Your task to perform on an android device: Set the phone to "Do not disturb". Image 0: 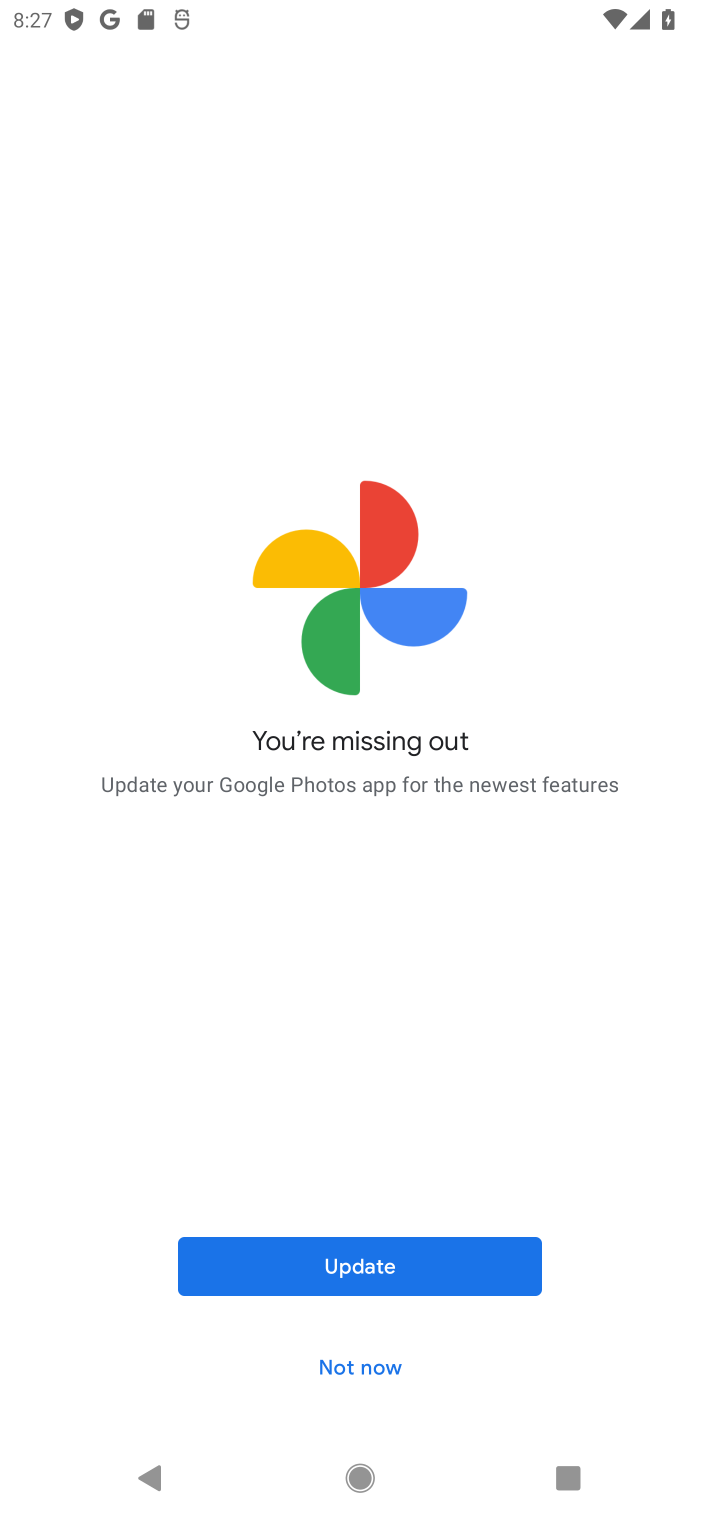
Step 0: press home button
Your task to perform on an android device: Set the phone to "Do not disturb". Image 1: 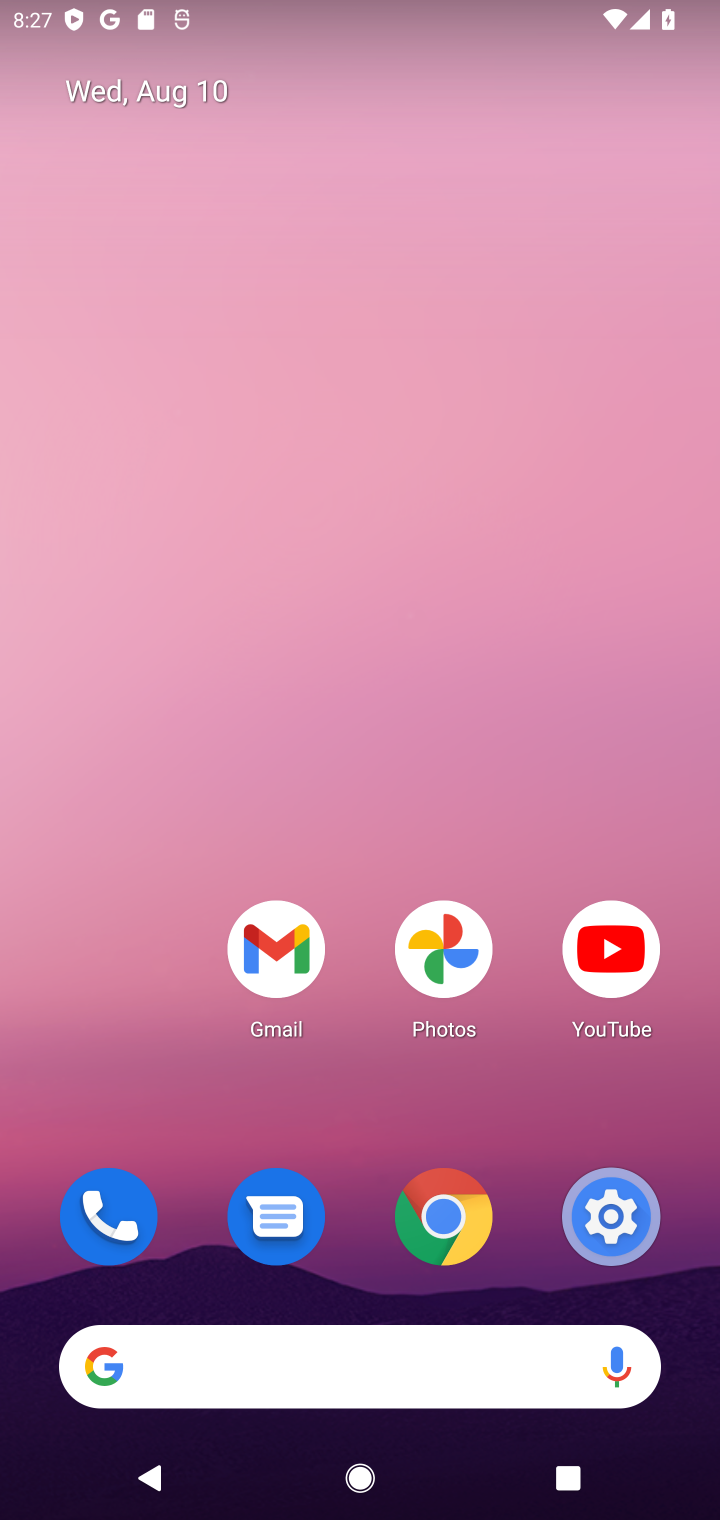
Step 1: drag from (222, 702) to (417, 223)
Your task to perform on an android device: Set the phone to "Do not disturb". Image 2: 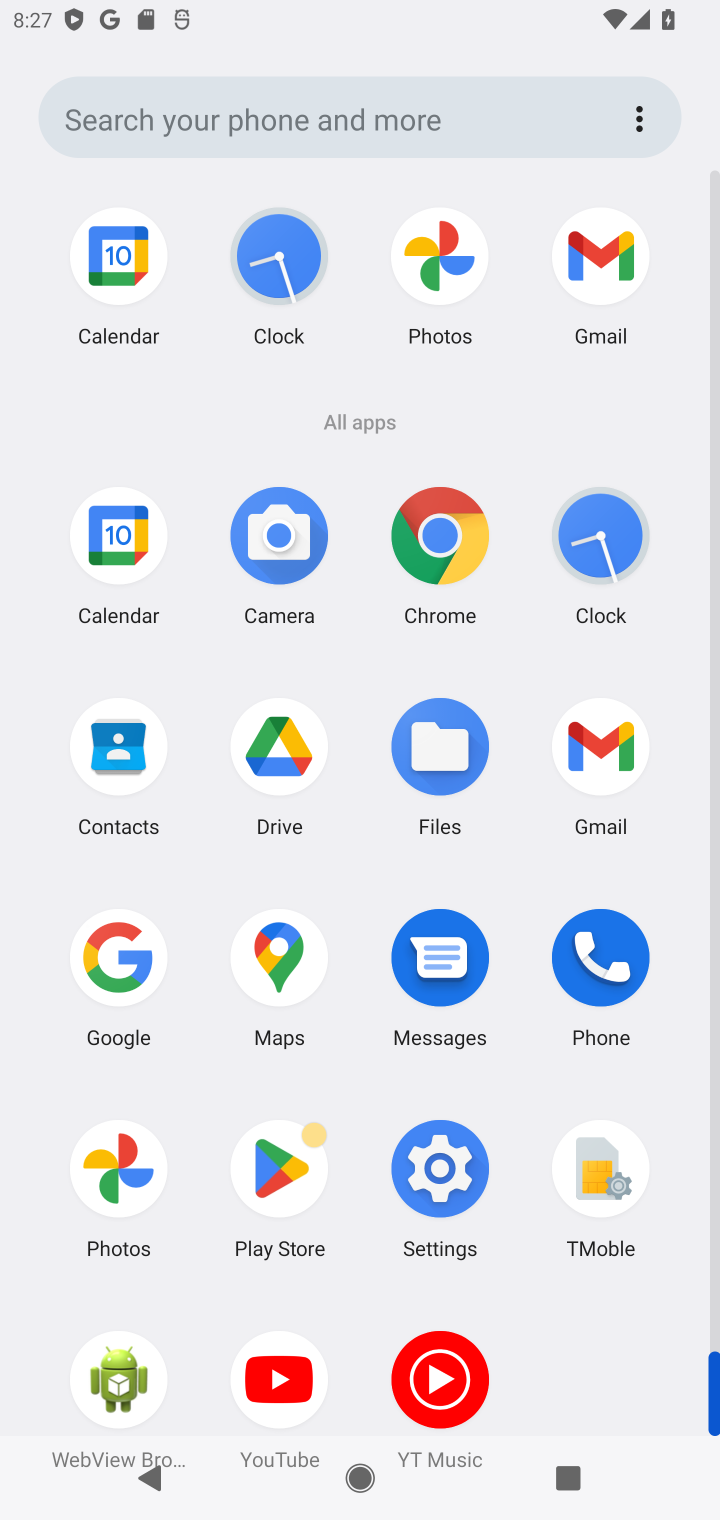
Step 2: click (415, 1185)
Your task to perform on an android device: Set the phone to "Do not disturb". Image 3: 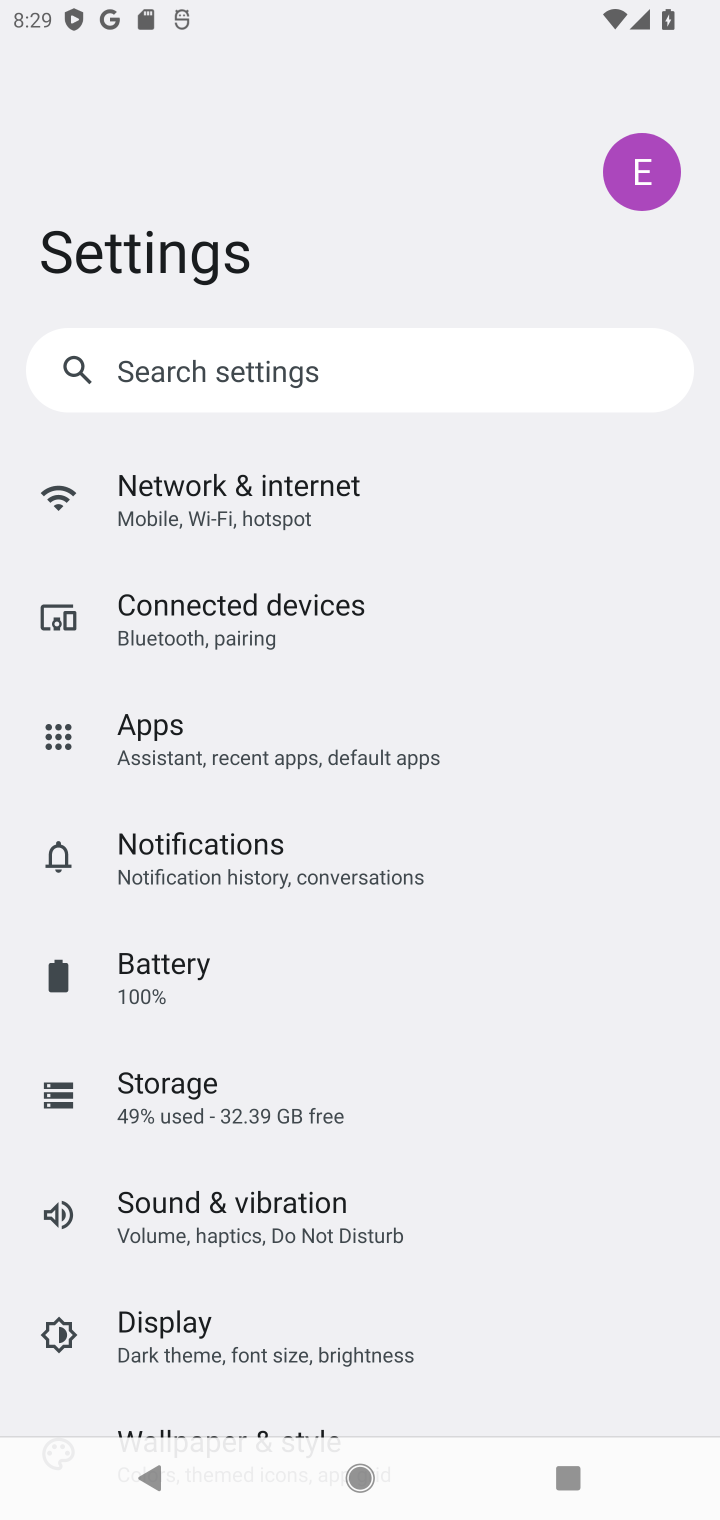
Step 3: task complete